Your task to perform on an android device: When is my next appointment? Image 0: 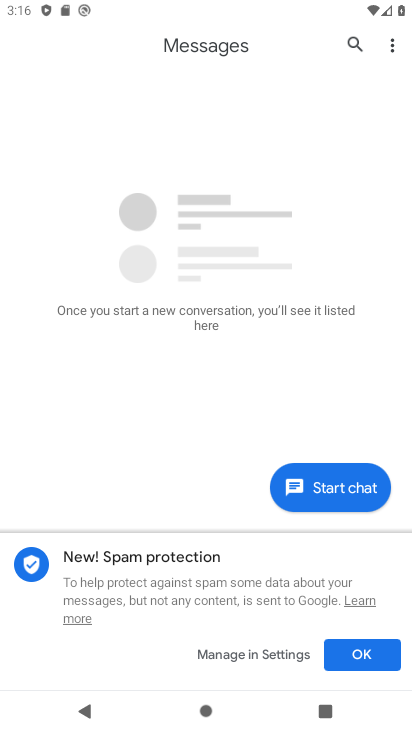
Step 0: press home button
Your task to perform on an android device: When is my next appointment? Image 1: 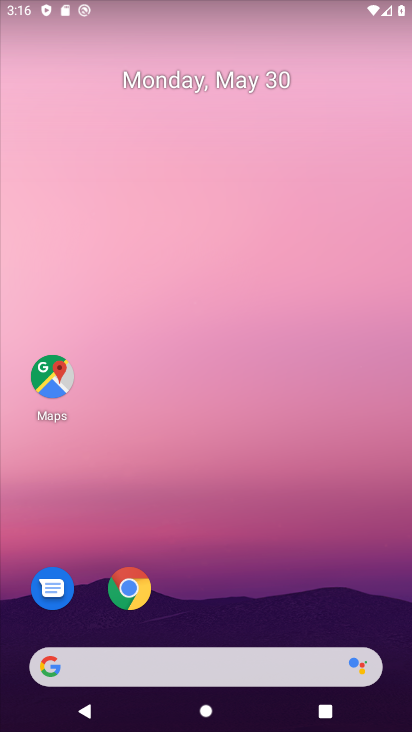
Step 1: drag from (364, 616) to (330, 124)
Your task to perform on an android device: When is my next appointment? Image 2: 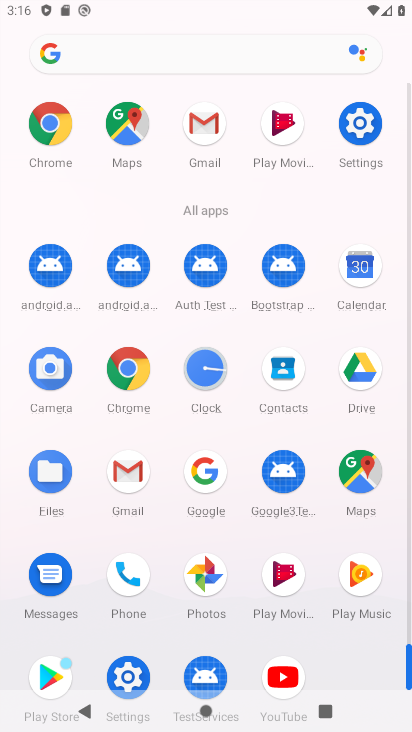
Step 2: click (366, 263)
Your task to perform on an android device: When is my next appointment? Image 3: 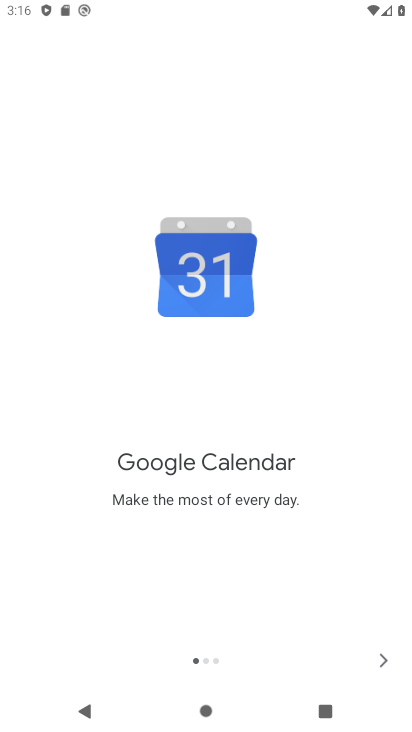
Step 3: click (381, 657)
Your task to perform on an android device: When is my next appointment? Image 4: 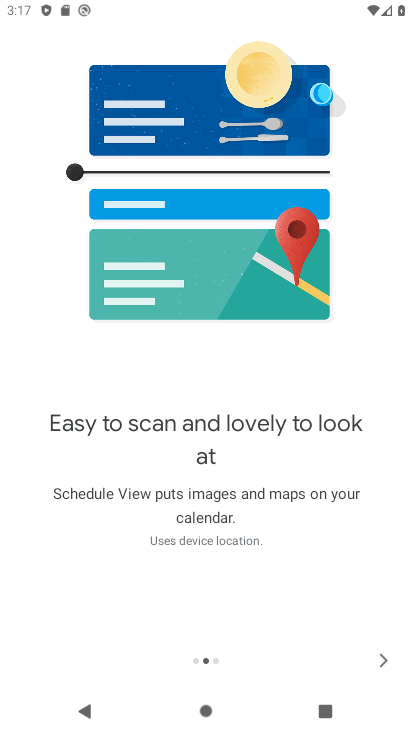
Step 4: click (381, 657)
Your task to perform on an android device: When is my next appointment? Image 5: 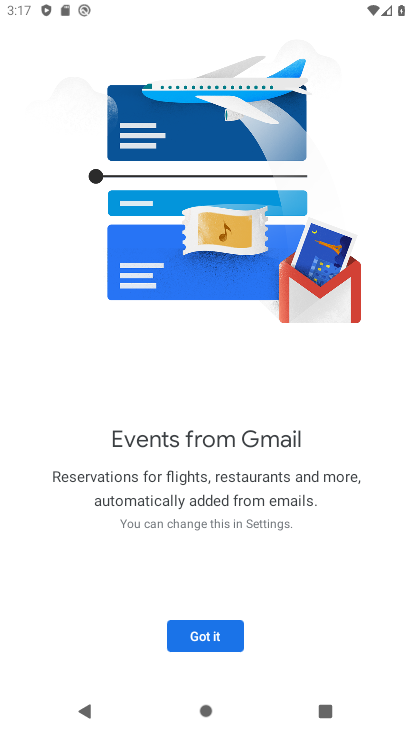
Step 5: click (190, 642)
Your task to perform on an android device: When is my next appointment? Image 6: 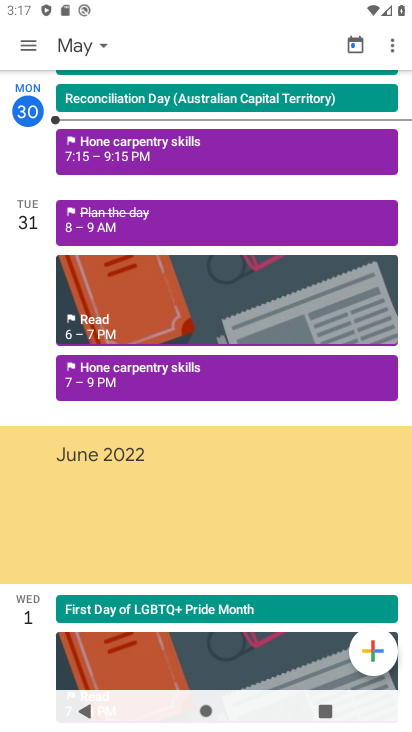
Step 6: click (25, 41)
Your task to perform on an android device: When is my next appointment? Image 7: 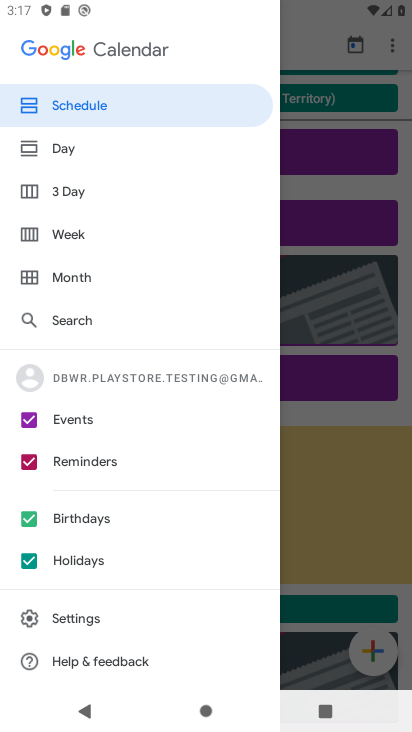
Step 7: click (72, 110)
Your task to perform on an android device: When is my next appointment? Image 8: 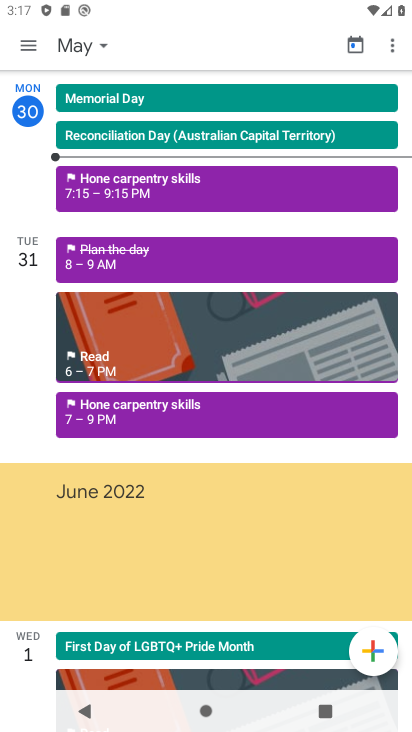
Step 8: task complete